Your task to perform on an android device: Go to battery settings Image 0: 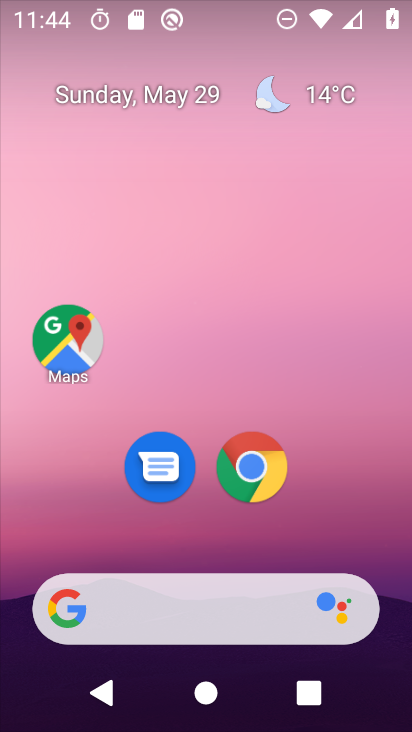
Step 0: drag from (204, 547) to (205, 140)
Your task to perform on an android device: Go to battery settings Image 1: 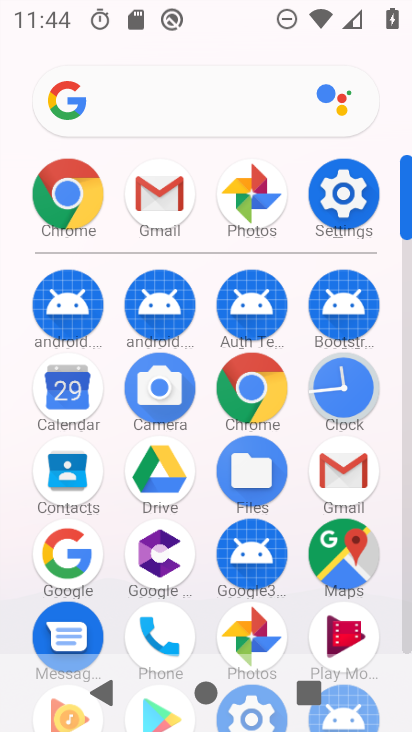
Step 1: click (330, 194)
Your task to perform on an android device: Go to battery settings Image 2: 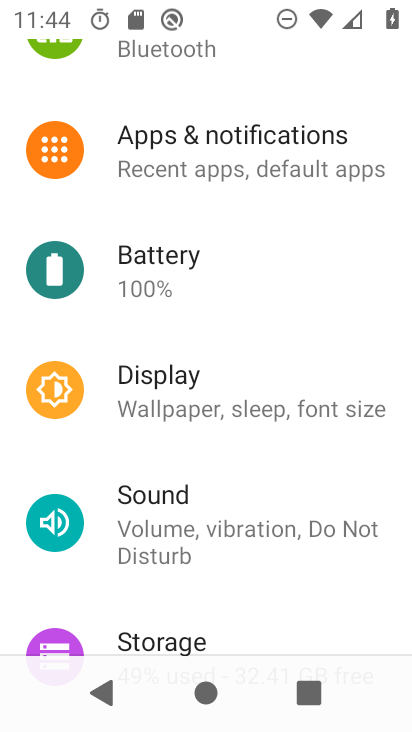
Step 2: click (207, 292)
Your task to perform on an android device: Go to battery settings Image 3: 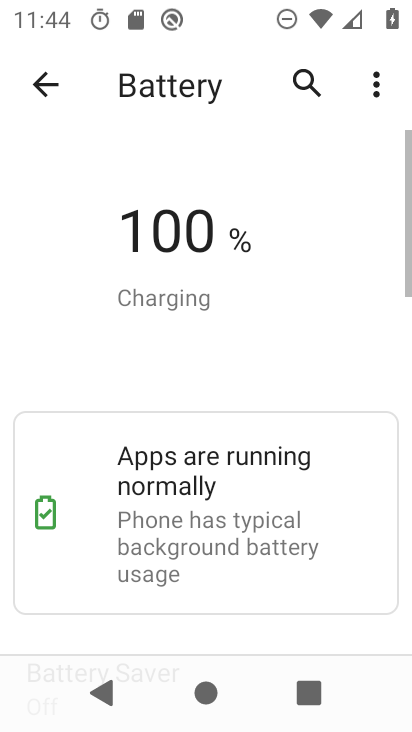
Step 3: task complete